Your task to perform on an android device: What's on my calendar tomorrow? Image 0: 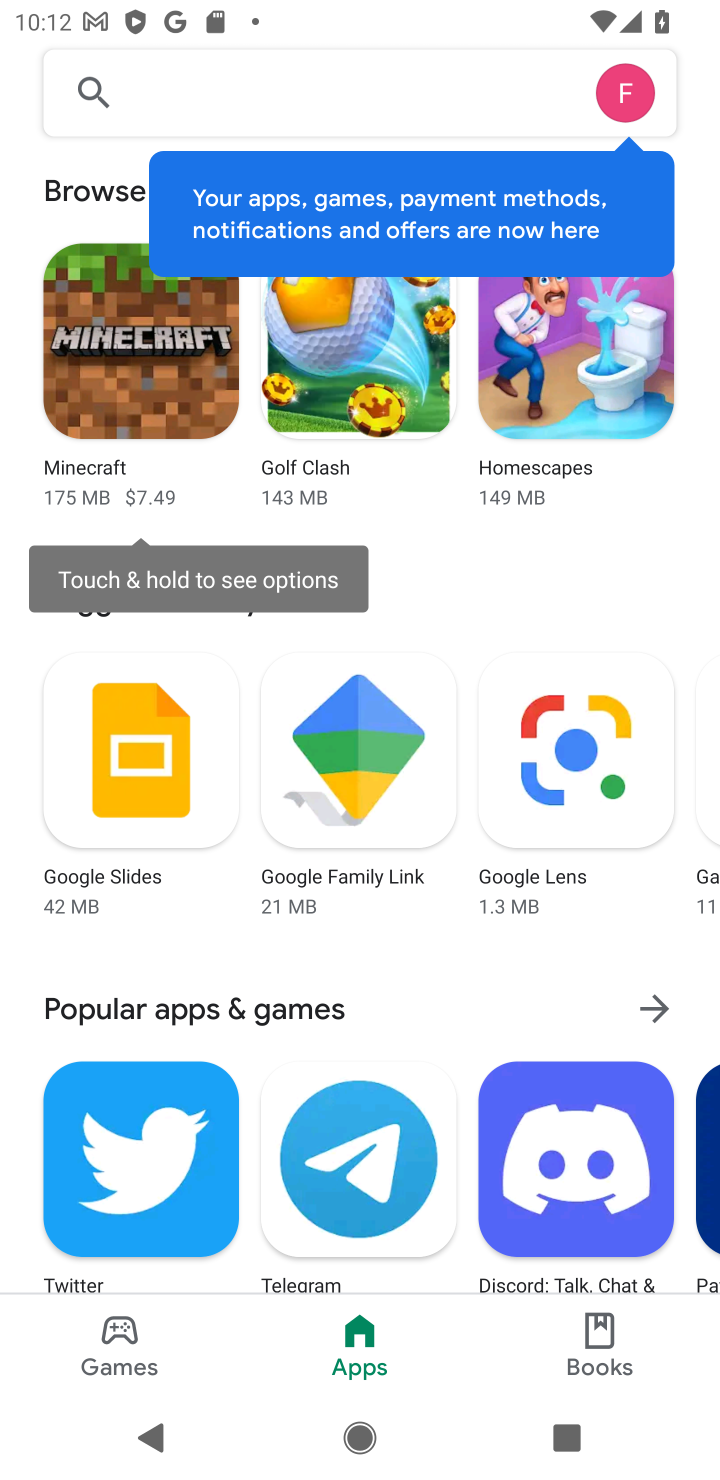
Step 0: press home button
Your task to perform on an android device: What's on my calendar tomorrow? Image 1: 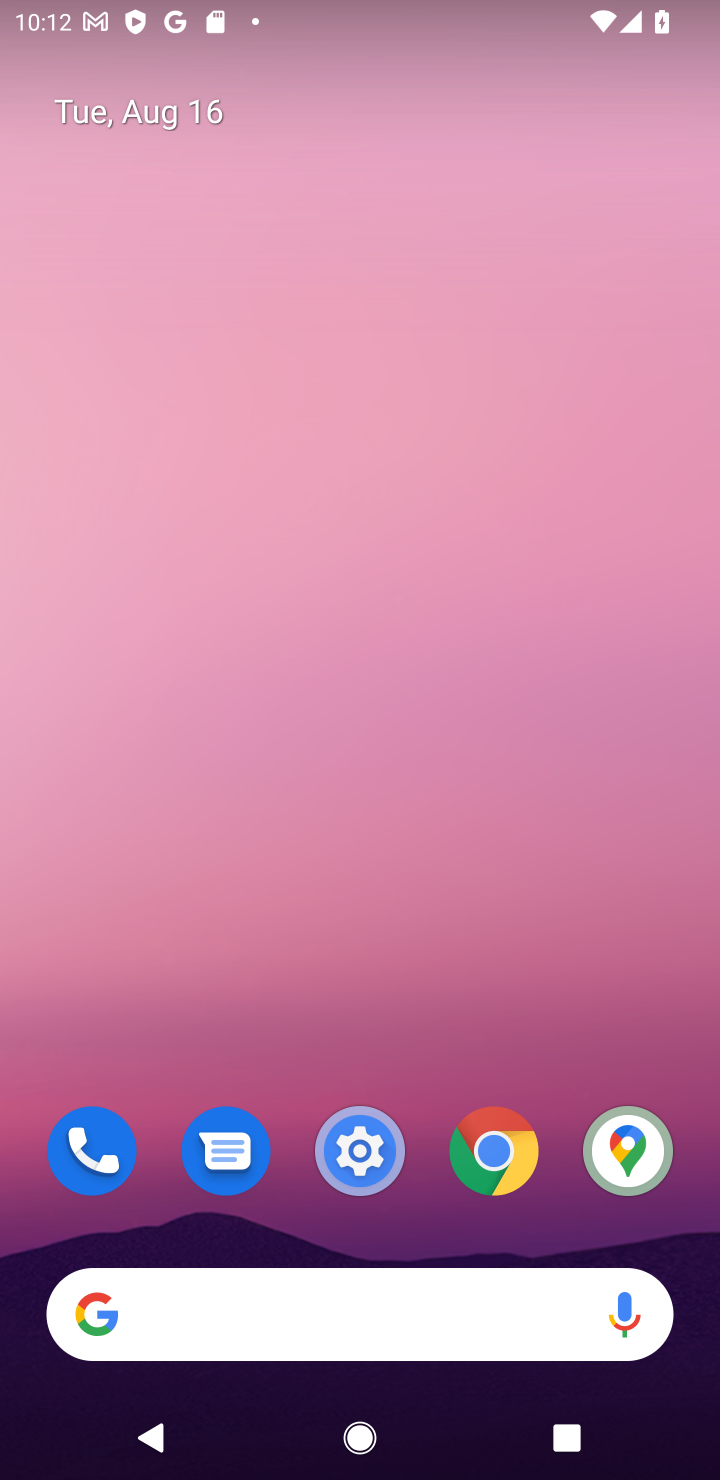
Step 1: drag from (351, 1062) to (263, 284)
Your task to perform on an android device: What's on my calendar tomorrow? Image 2: 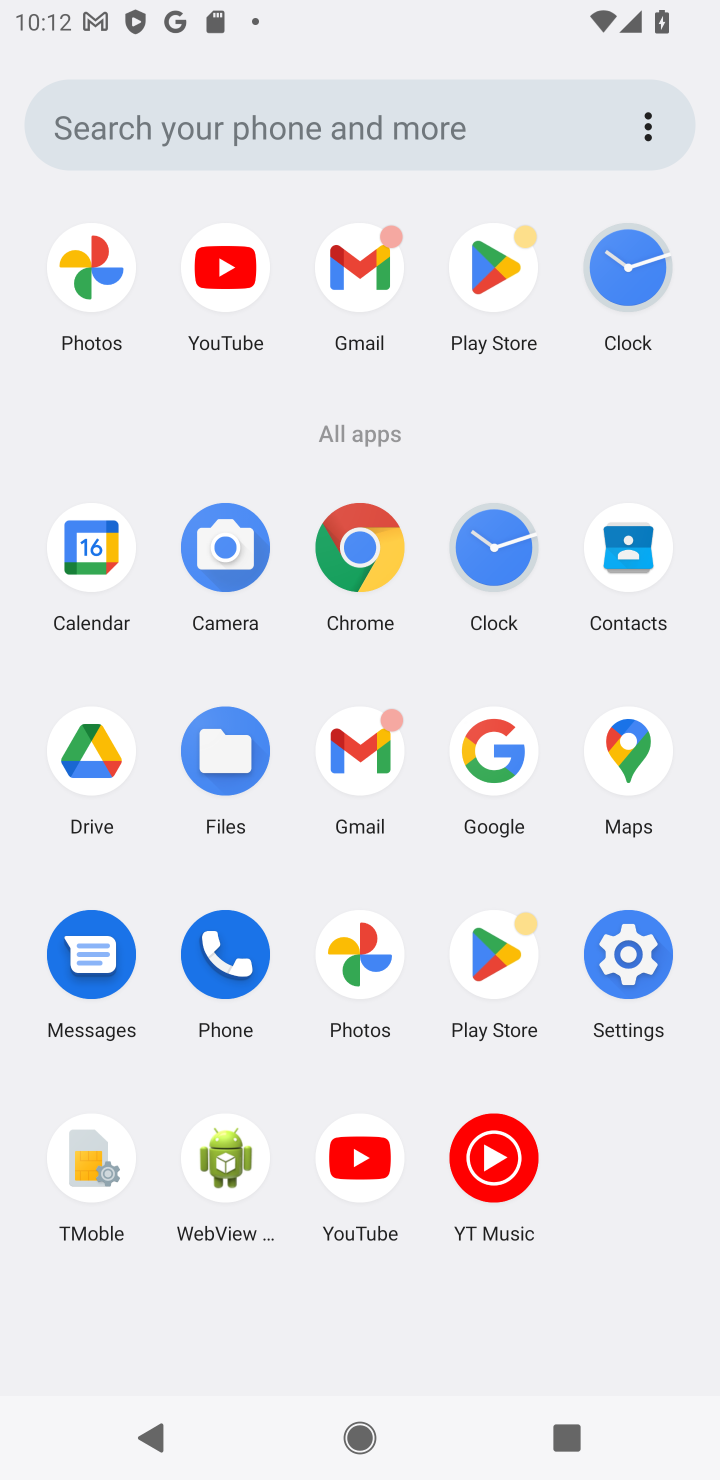
Step 2: click (94, 544)
Your task to perform on an android device: What's on my calendar tomorrow? Image 3: 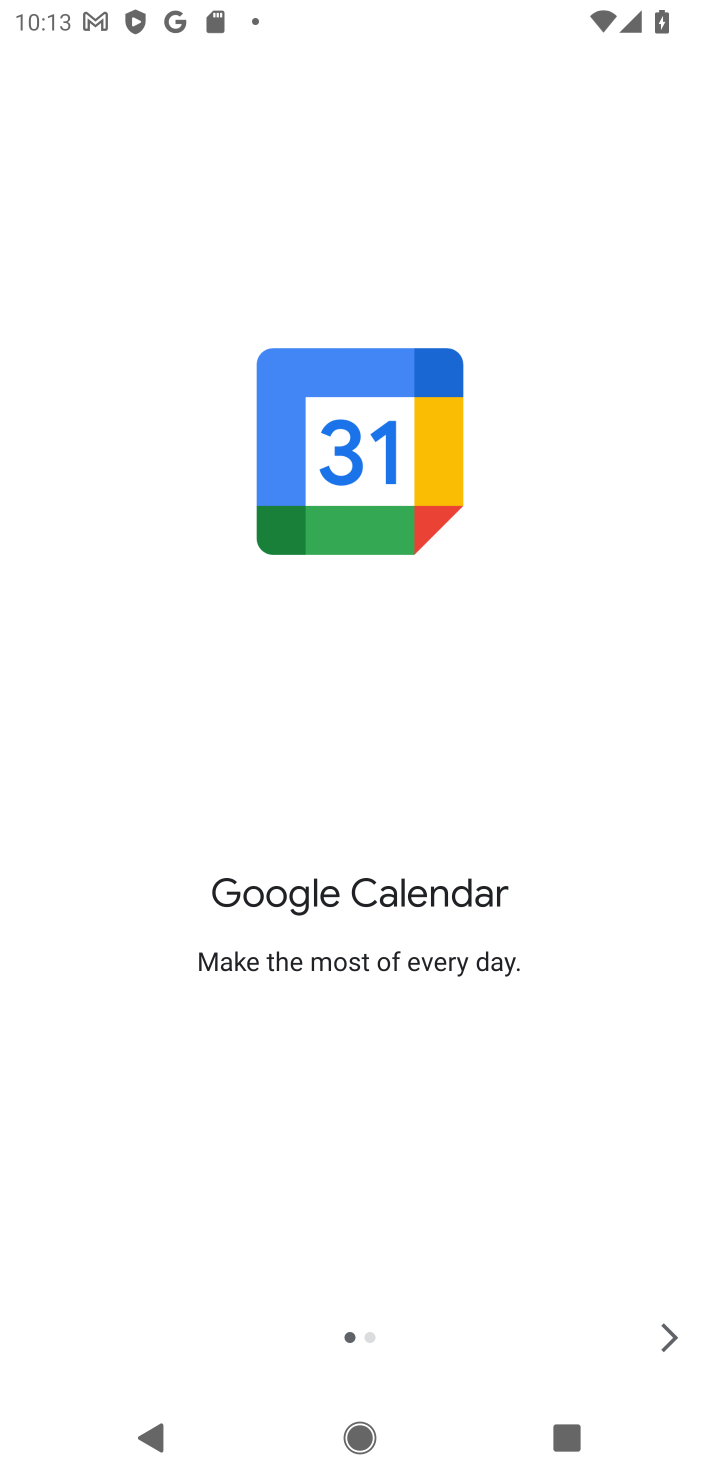
Step 3: click (690, 1332)
Your task to perform on an android device: What's on my calendar tomorrow? Image 4: 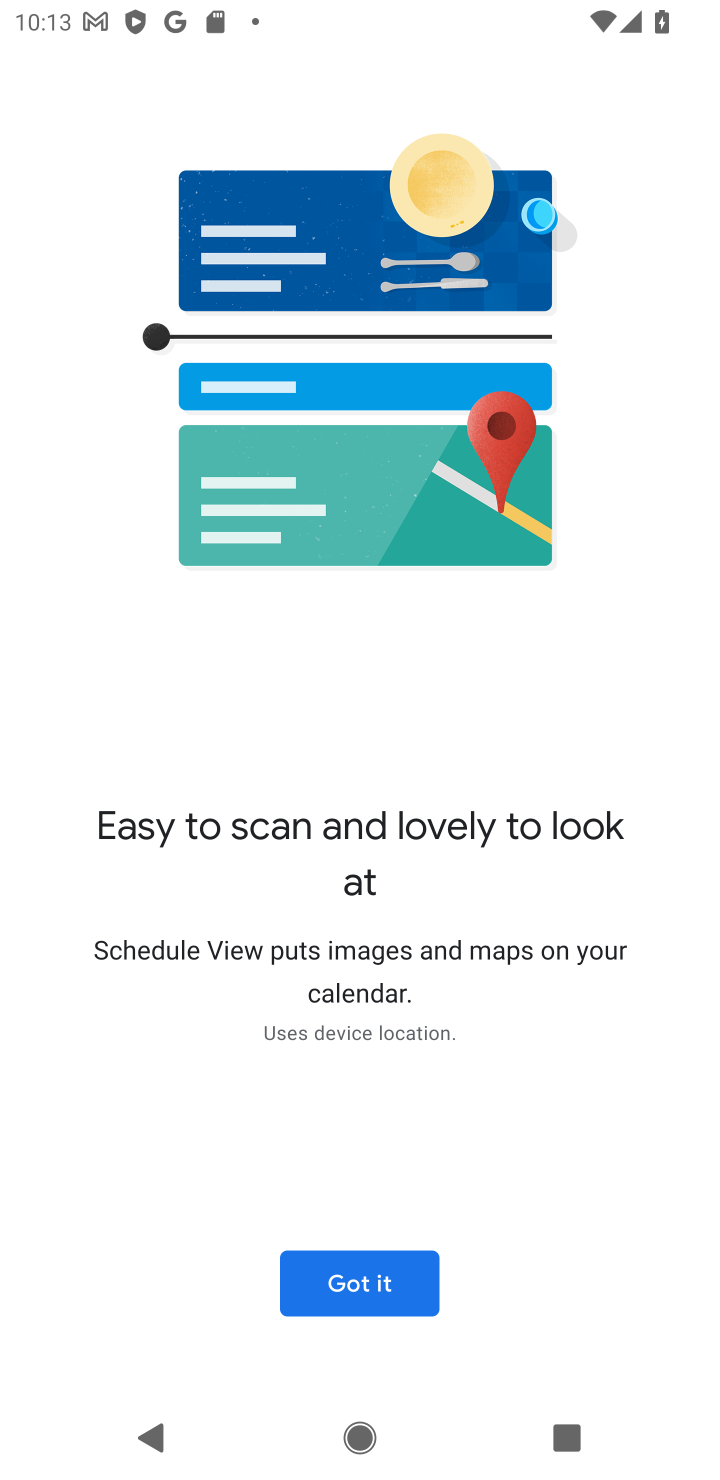
Step 4: click (357, 1296)
Your task to perform on an android device: What's on my calendar tomorrow? Image 5: 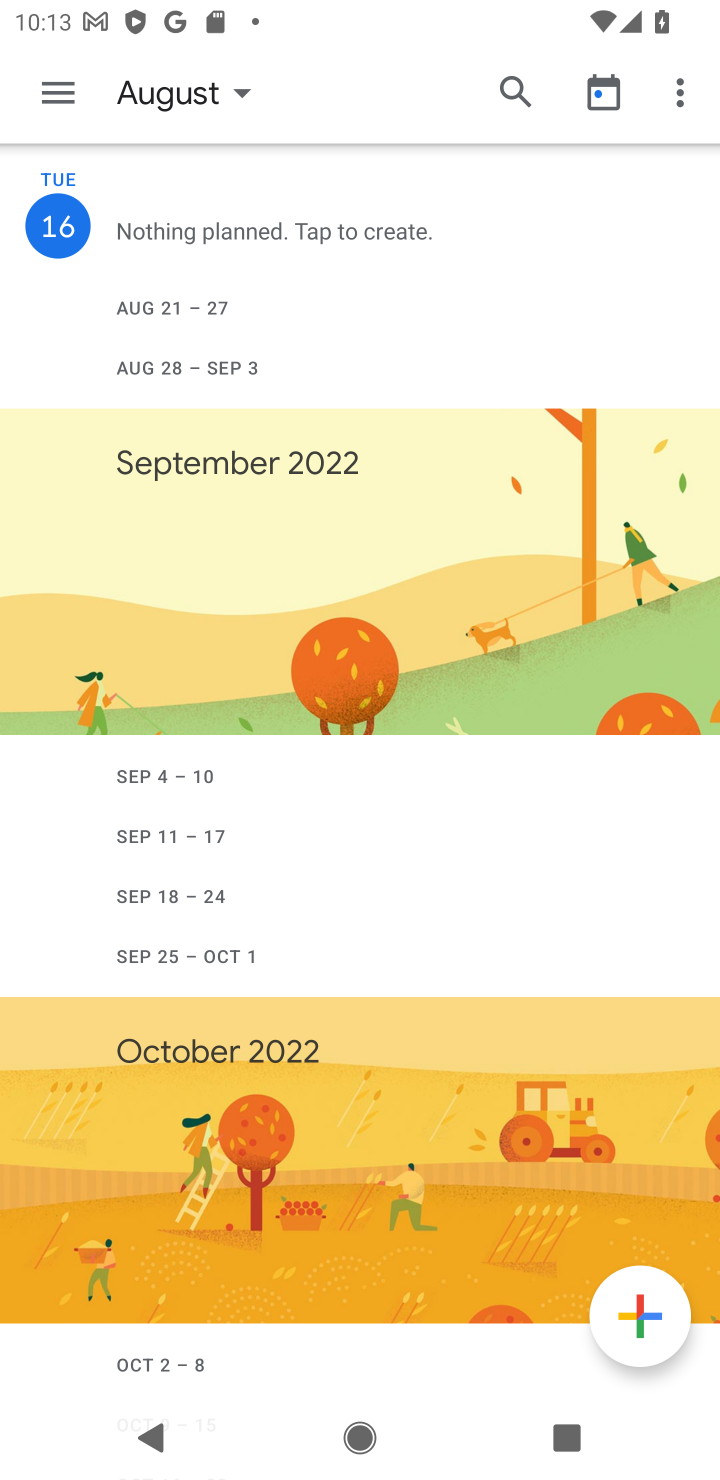
Step 5: click (51, 78)
Your task to perform on an android device: What's on my calendar tomorrow? Image 6: 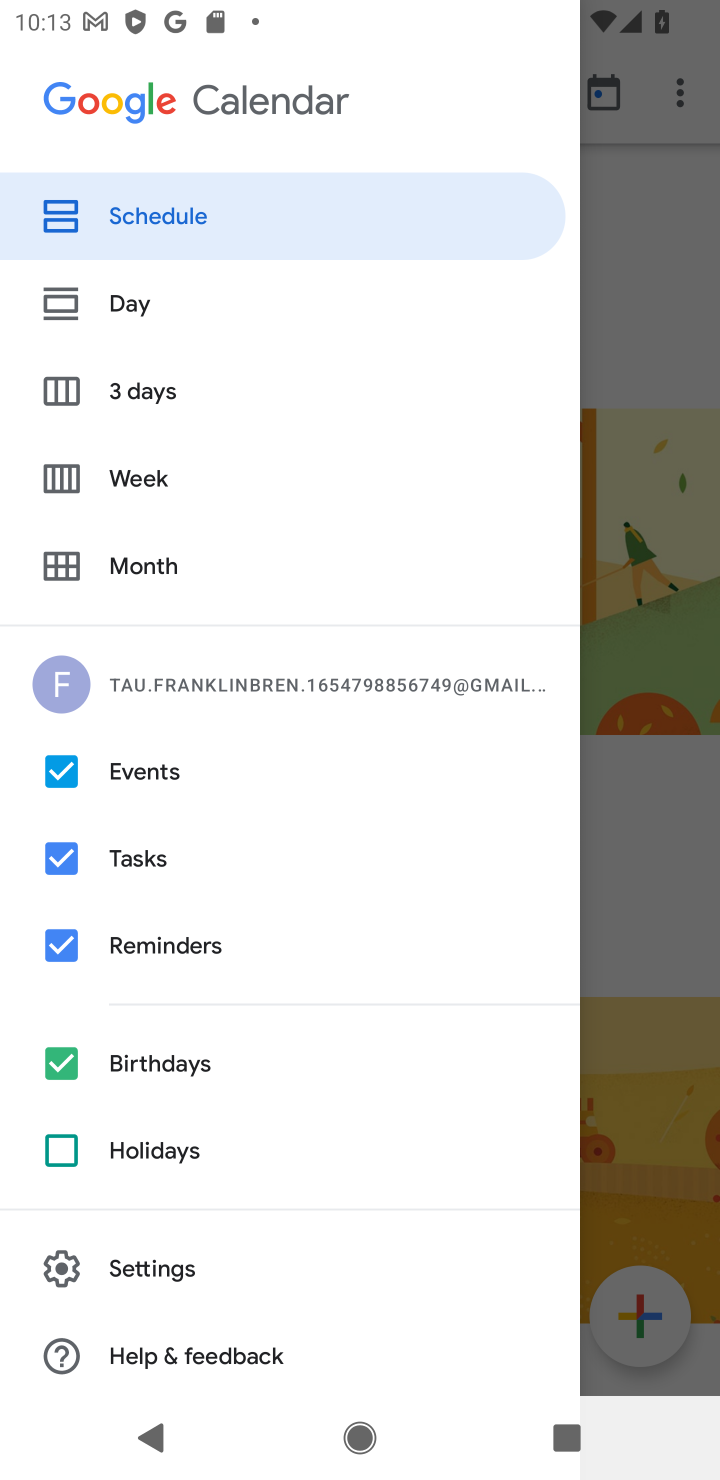
Step 6: click (135, 305)
Your task to perform on an android device: What's on my calendar tomorrow? Image 7: 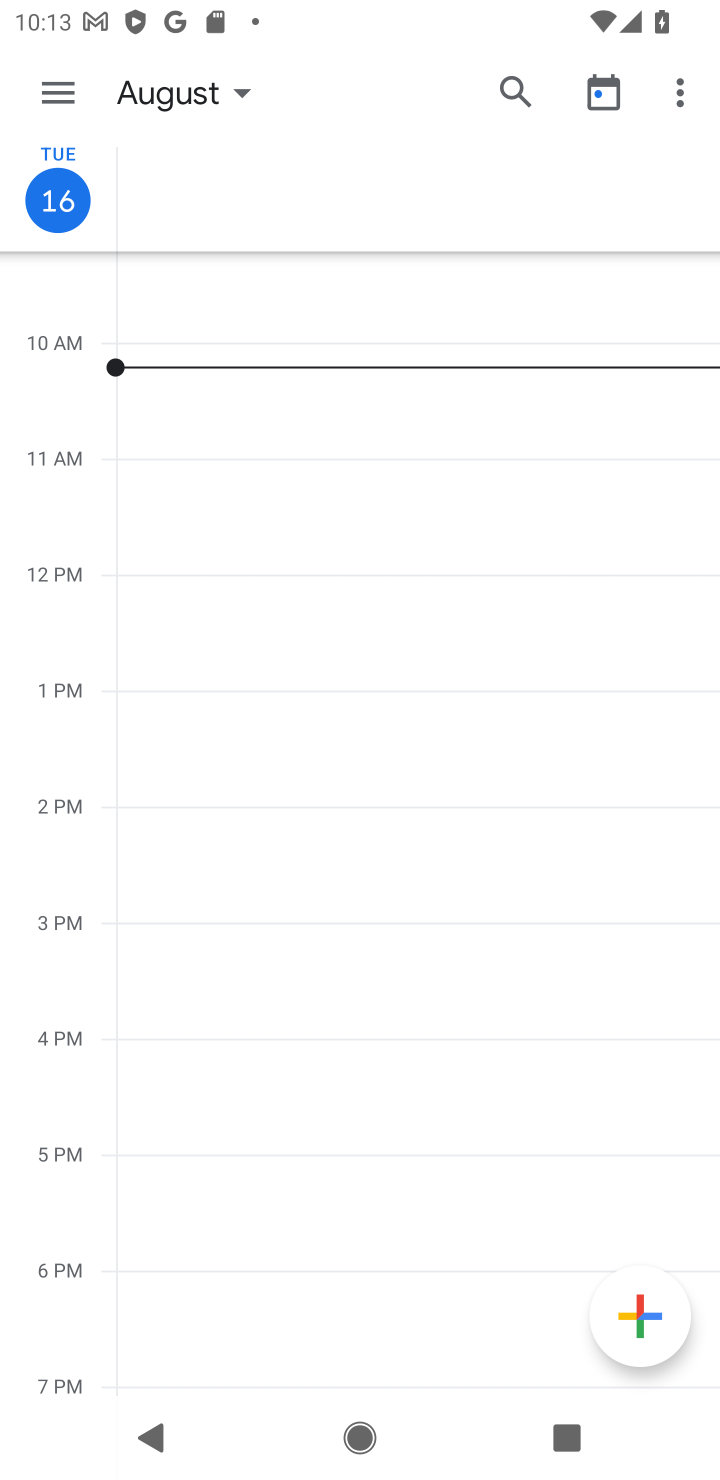
Step 7: click (230, 88)
Your task to perform on an android device: What's on my calendar tomorrow? Image 8: 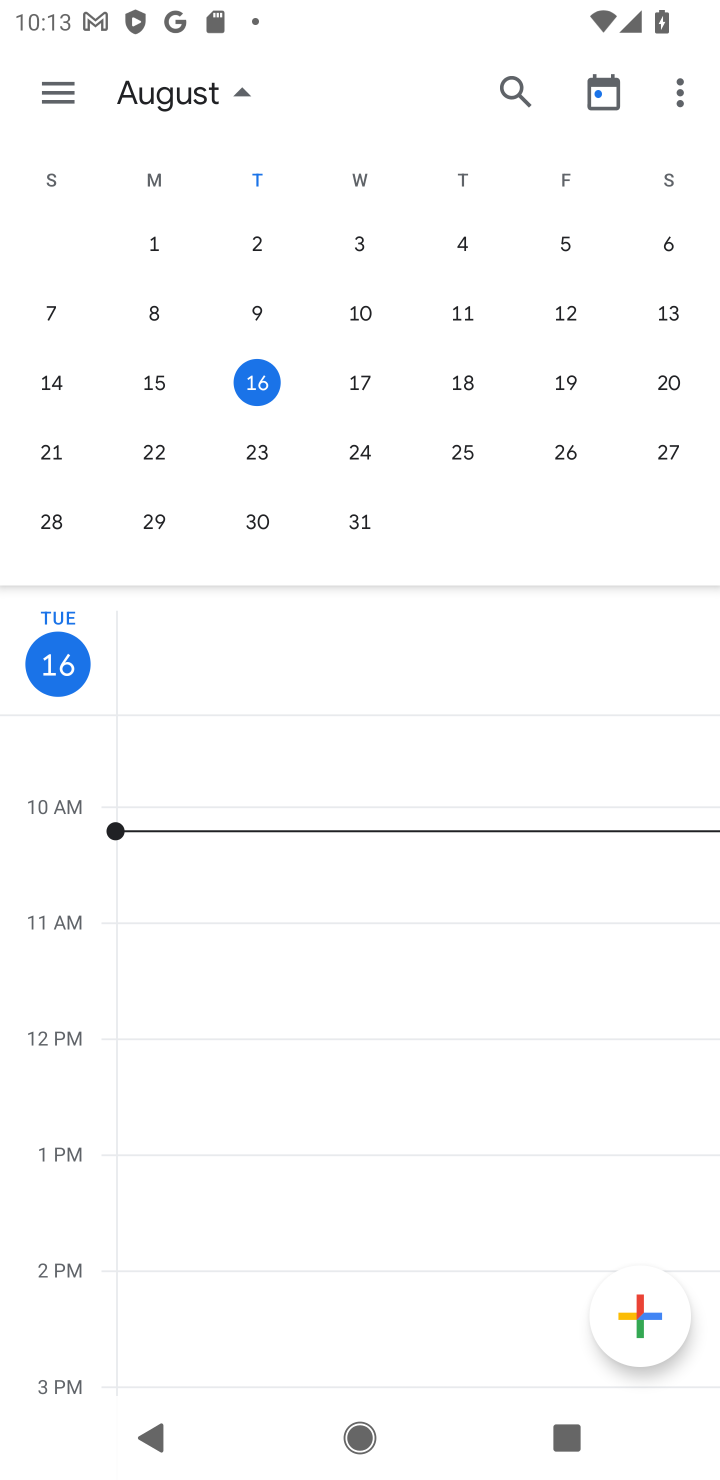
Step 8: click (372, 379)
Your task to perform on an android device: What's on my calendar tomorrow? Image 9: 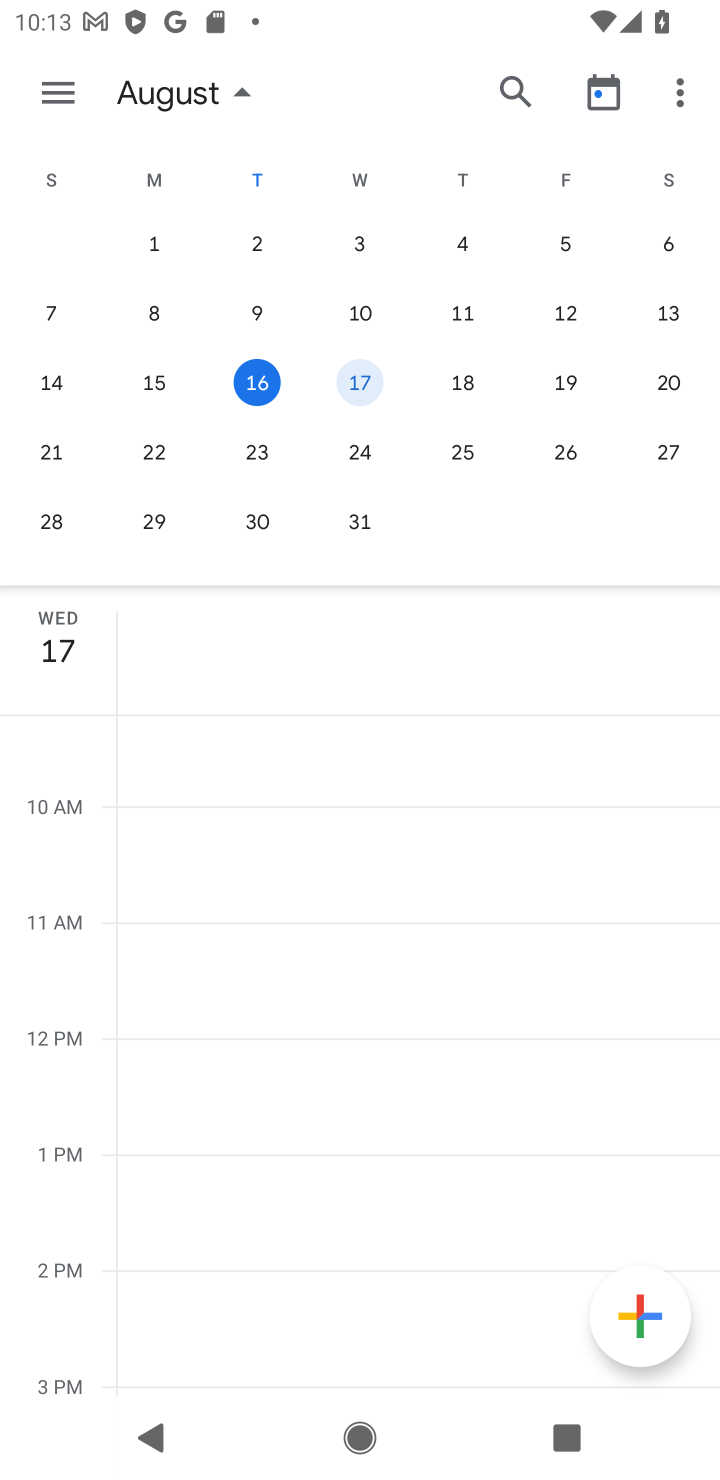
Step 9: task complete